Your task to perform on an android device: Open eBay Image 0: 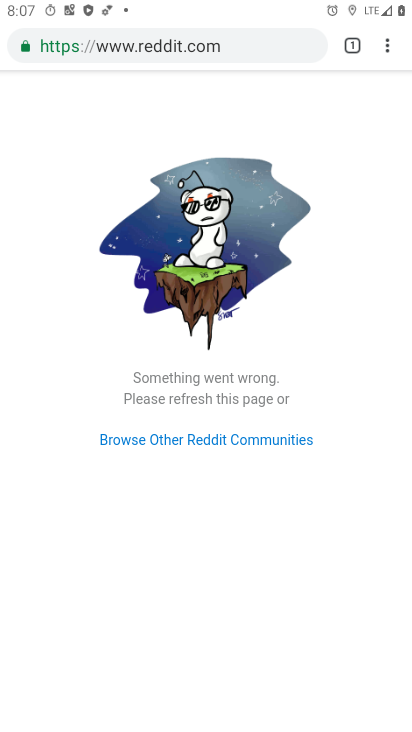
Step 0: drag from (242, 656) to (208, 170)
Your task to perform on an android device: Open eBay Image 1: 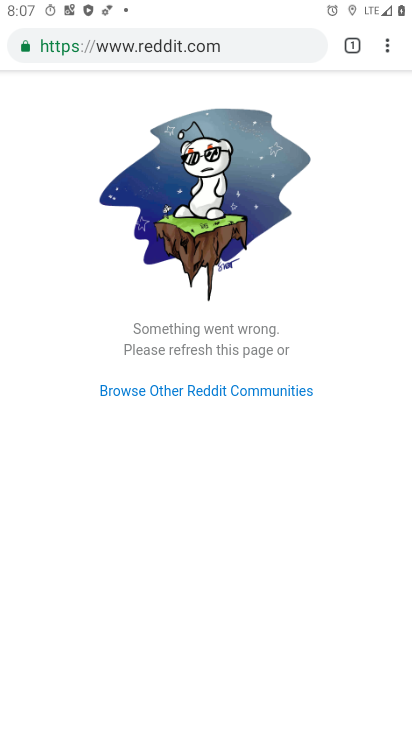
Step 1: press home button
Your task to perform on an android device: Open eBay Image 2: 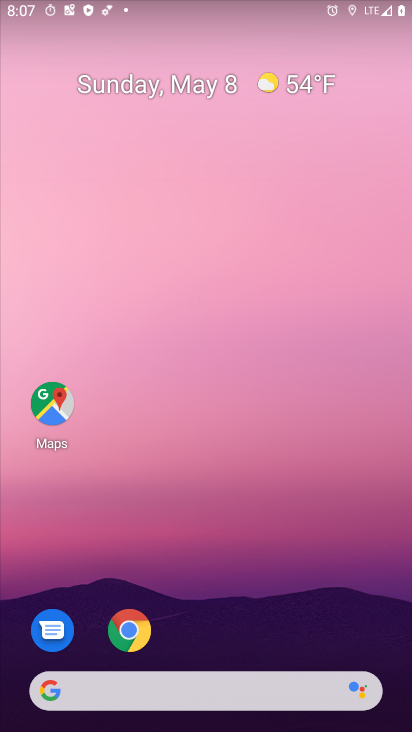
Step 2: click (140, 641)
Your task to perform on an android device: Open eBay Image 3: 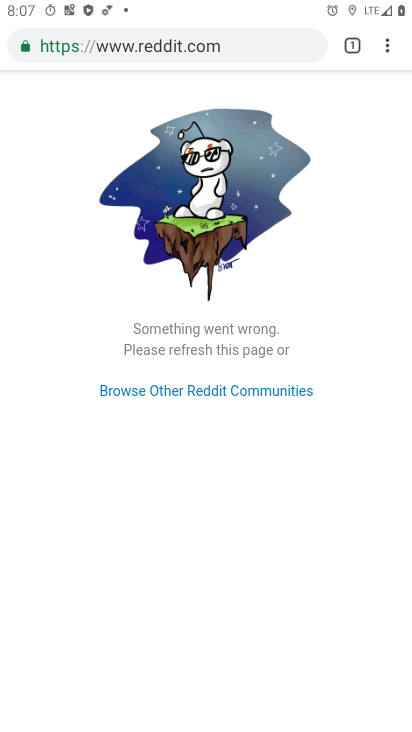
Step 3: click (356, 46)
Your task to perform on an android device: Open eBay Image 4: 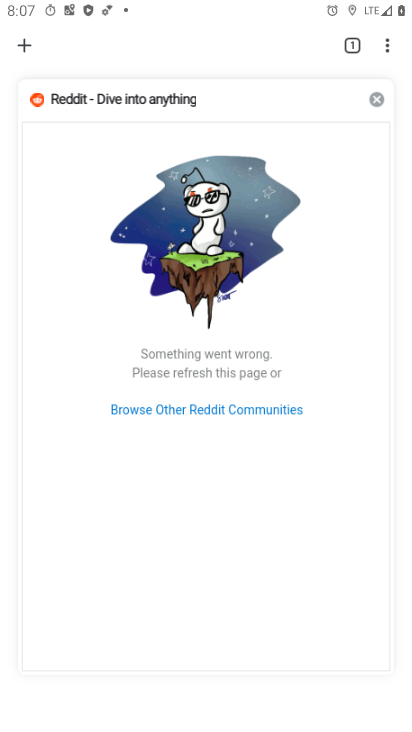
Step 4: click (31, 40)
Your task to perform on an android device: Open eBay Image 5: 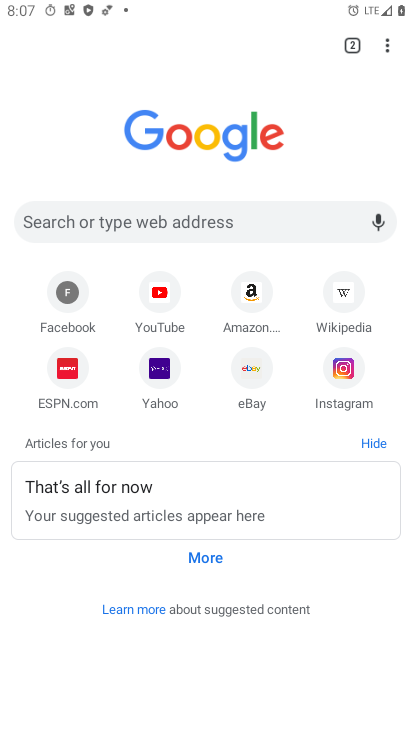
Step 5: click (254, 374)
Your task to perform on an android device: Open eBay Image 6: 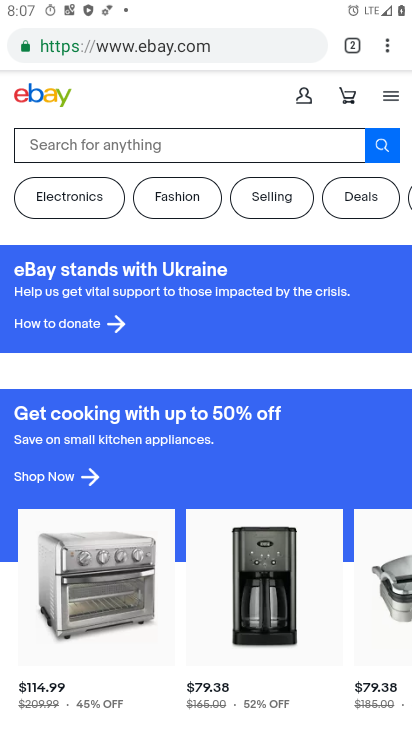
Step 6: task complete